Your task to perform on an android device: Is it going to rain today? Image 0: 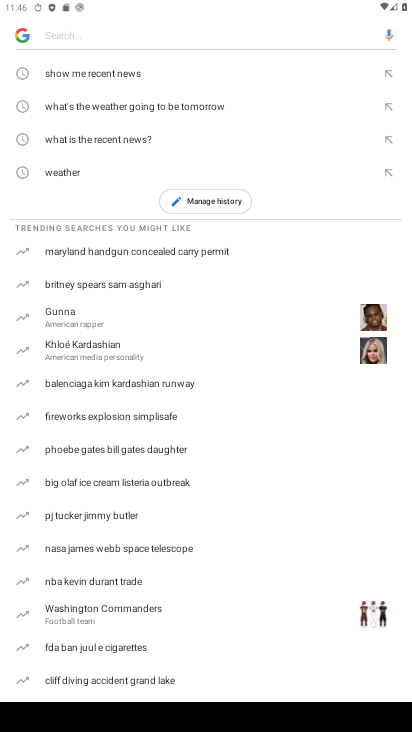
Step 0: press home button
Your task to perform on an android device: Is it going to rain today? Image 1: 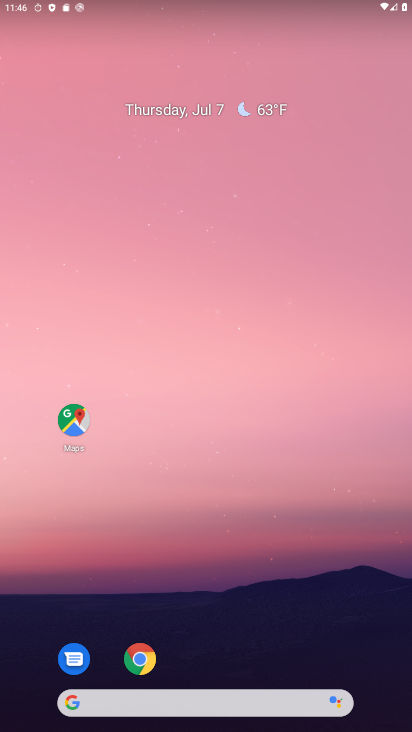
Step 1: click (181, 698)
Your task to perform on an android device: Is it going to rain today? Image 2: 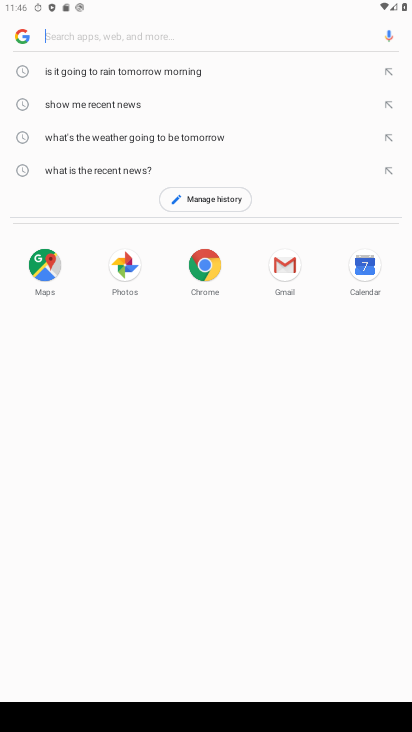
Step 2: type "weather"
Your task to perform on an android device: Is it going to rain today? Image 3: 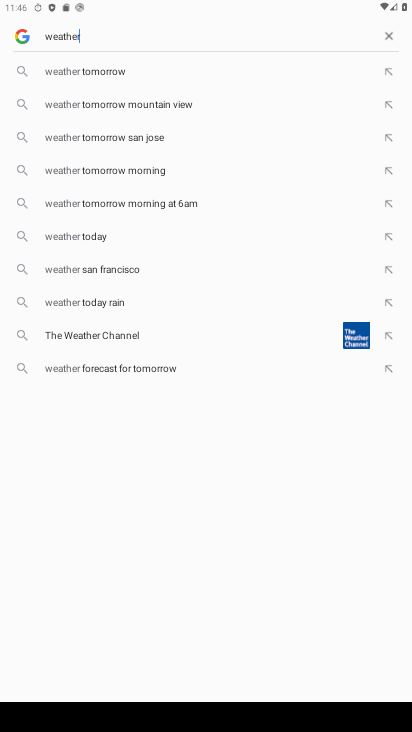
Step 3: type " today"
Your task to perform on an android device: Is it going to rain today? Image 4: 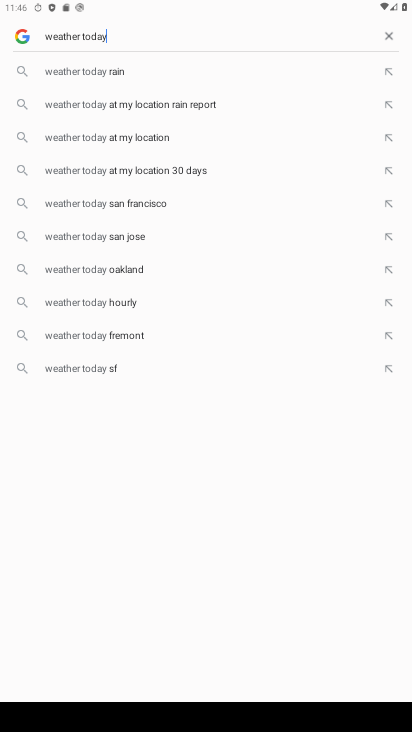
Step 4: click (129, 66)
Your task to perform on an android device: Is it going to rain today? Image 5: 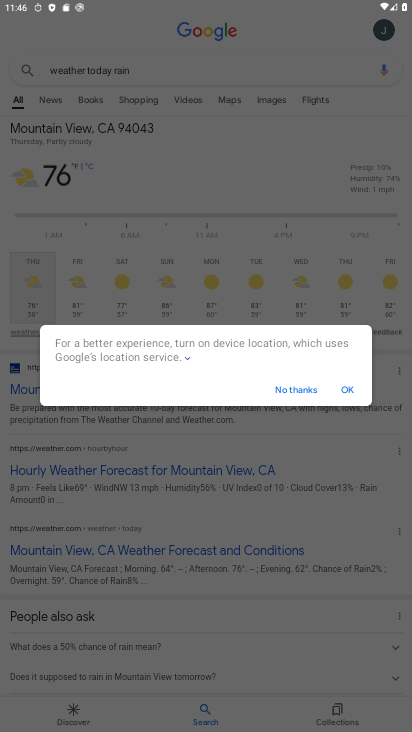
Step 5: click (352, 395)
Your task to perform on an android device: Is it going to rain today? Image 6: 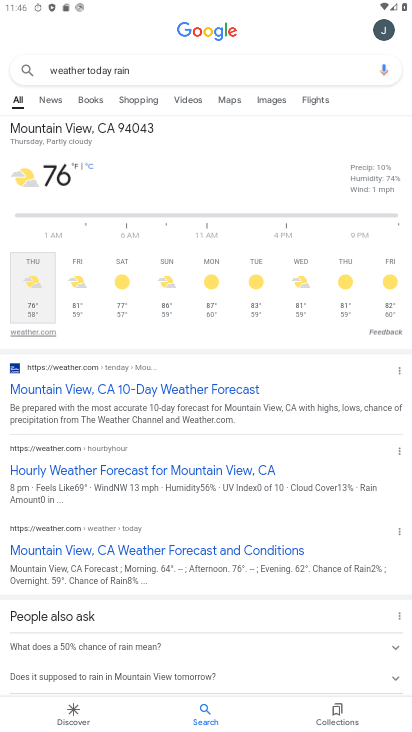
Step 6: task complete